Your task to perform on an android device: When is my next meeting? Image 0: 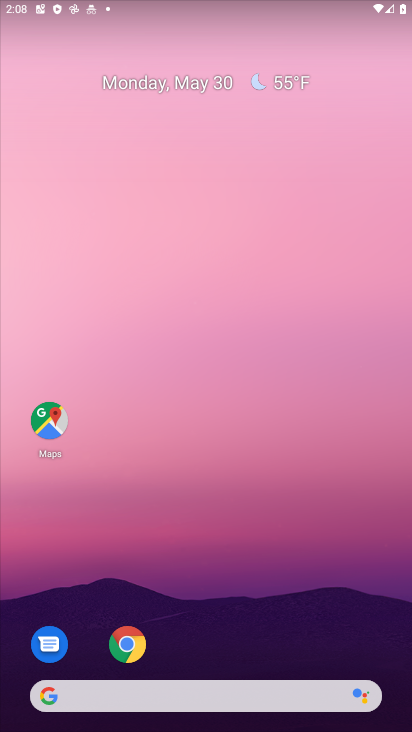
Step 0: drag from (314, 614) to (350, 152)
Your task to perform on an android device: When is my next meeting? Image 1: 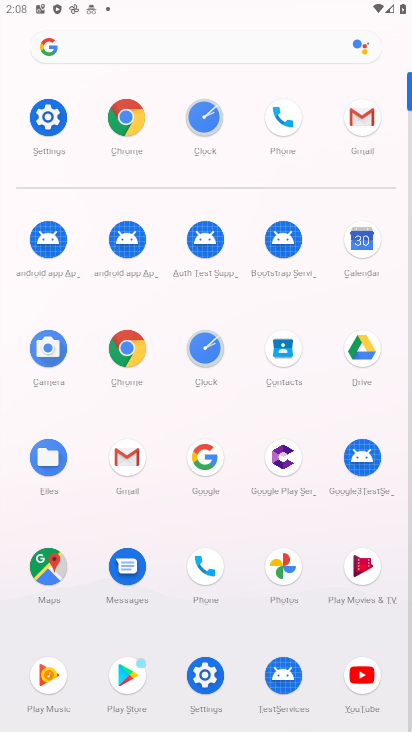
Step 1: click (370, 247)
Your task to perform on an android device: When is my next meeting? Image 2: 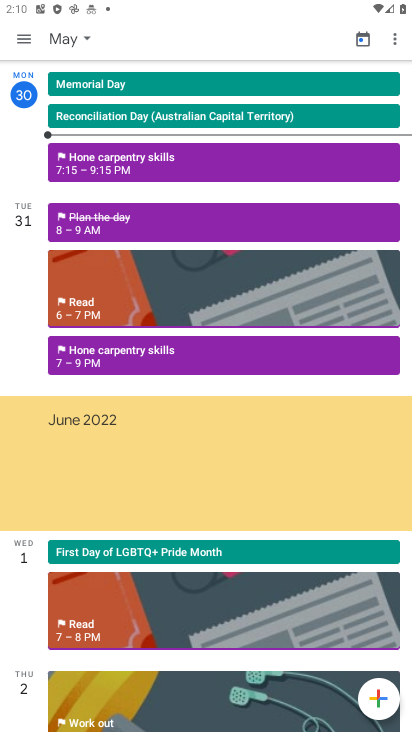
Step 2: task complete